Your task to perform on an android device: turn off location Image 0: 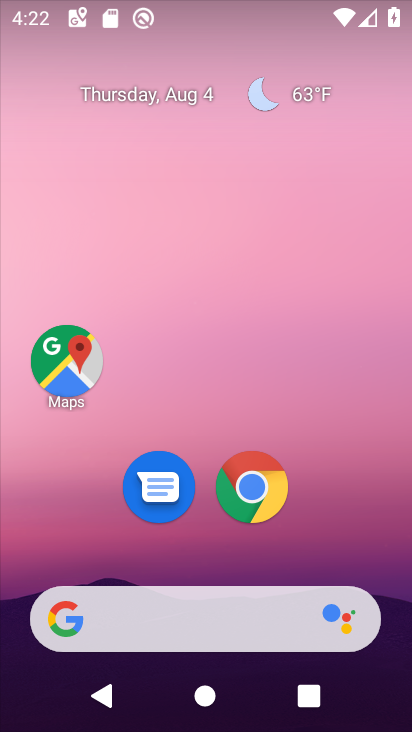
Step 0: drag from (210, 489) to (272, 47)
Your task to perform on an android device: turn off location Image 1: 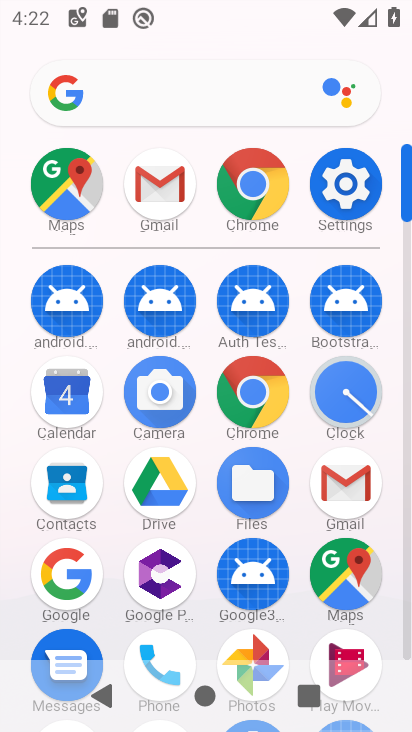
Step 1: click (358, 171)
Your task to perform on an android device: turn off location Image 2: 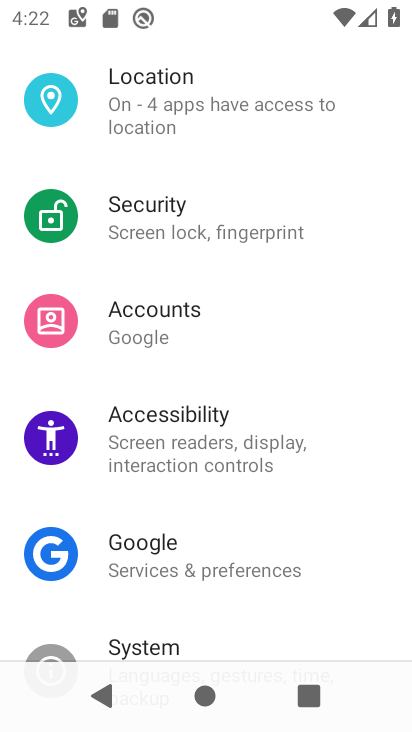
Step 2: click (216, 97)
Your task to perform on an android device: turn off location Image 3: 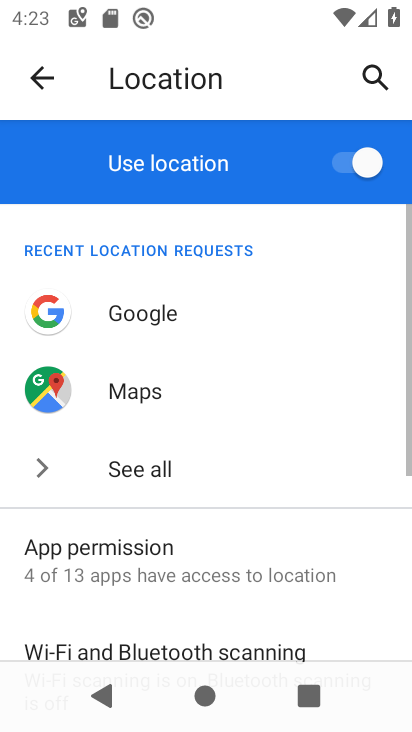
Step 3: click (343, 158)
Your task to perform on an android device: turn off location Image 4: 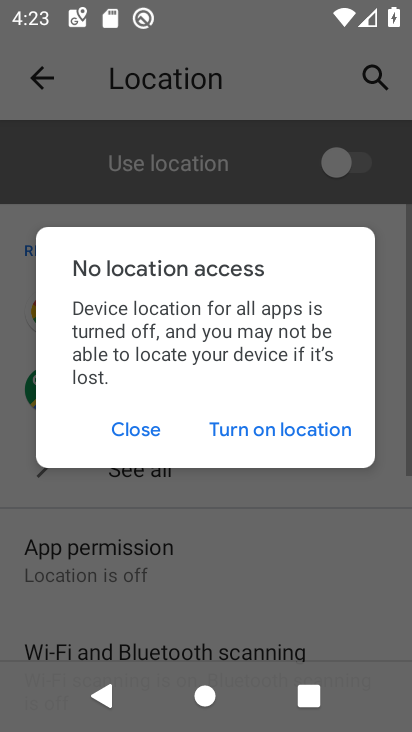
Step 4: task complete